Your task to perform on an android device: open app "DuckDuckGo Privacy Browser" (install if not already installed) Image 0: 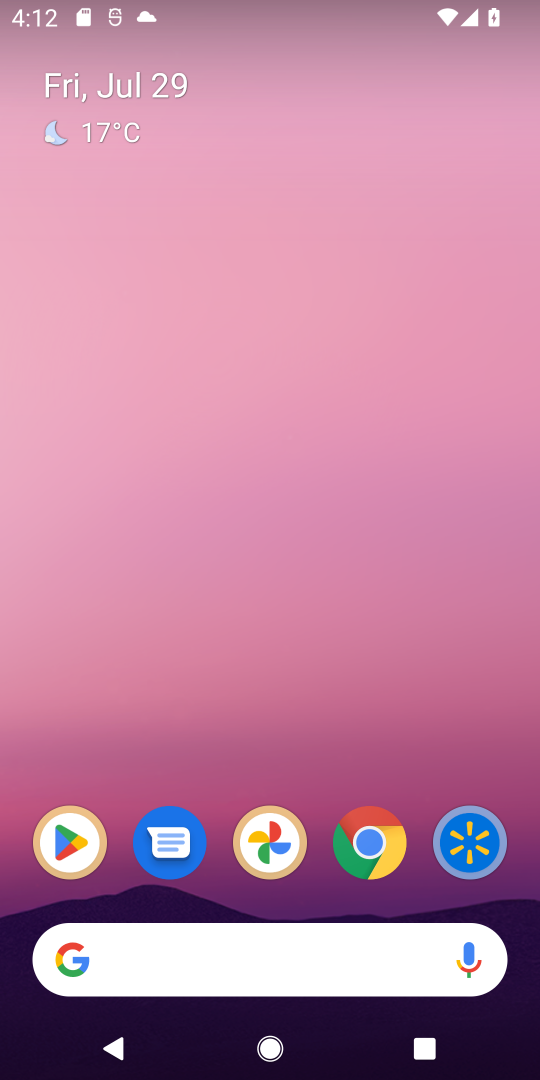
Step 0: click (79, 855)
Your task to perform on an android device: open app "DuckDuckGo Privacy Browser" (install if not already installed) Image 1: 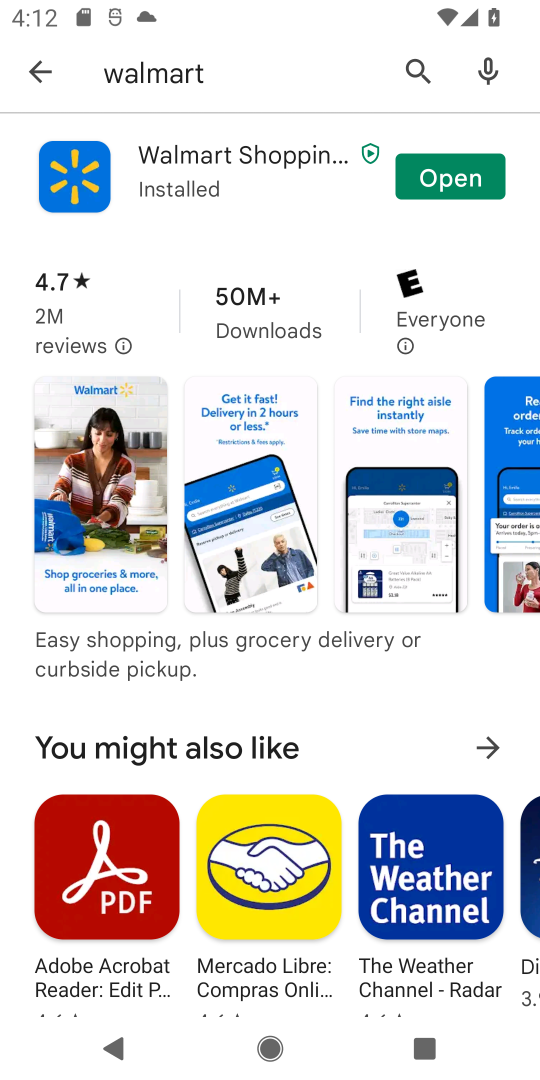
Step 1: click (418, 66)
Your task to perform on an android device: open app "DuckDuckGo Privacy Browser" (install if not already installed) Image 2: 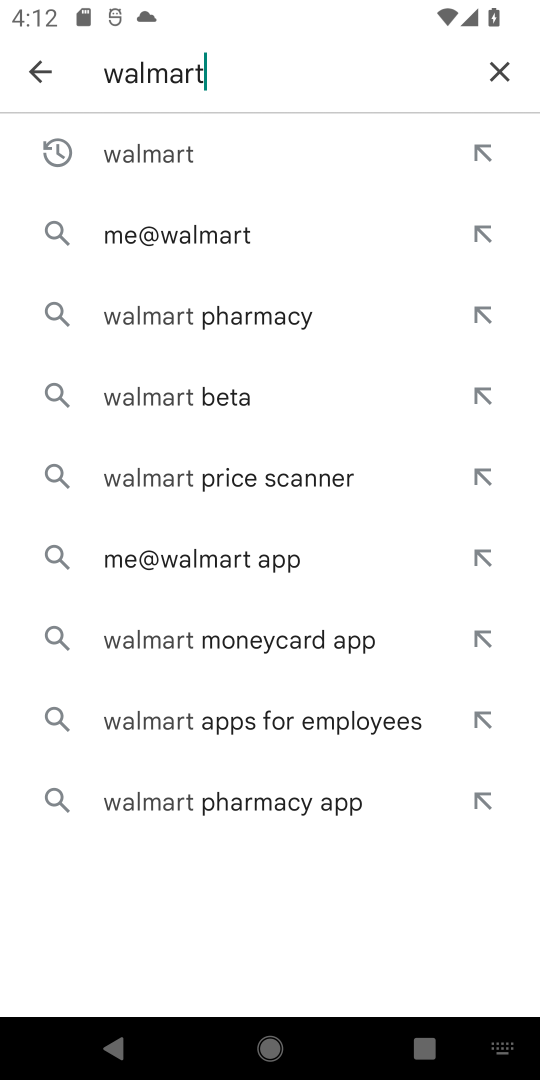
Step 2: click (497, 78)
Your task to perform on an android device: open app "DuckDuckGo Privacy Browser" (install if not already installed) Image 3: 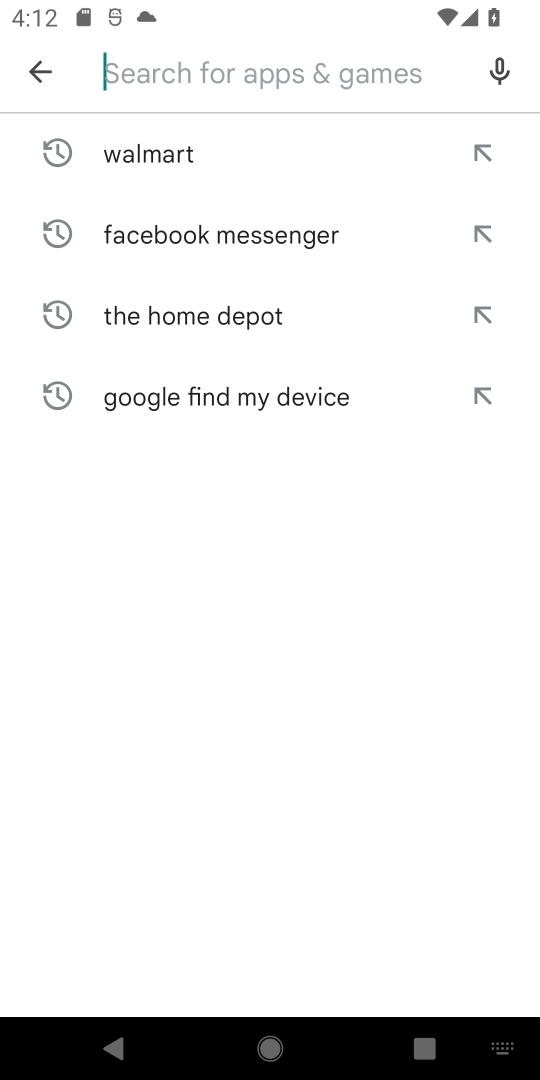
Step 3: click (224, 78)
Your task to perform on an android device: open app "DuckDuckGo Privacy Browser" (install if not already installed) Image 4: 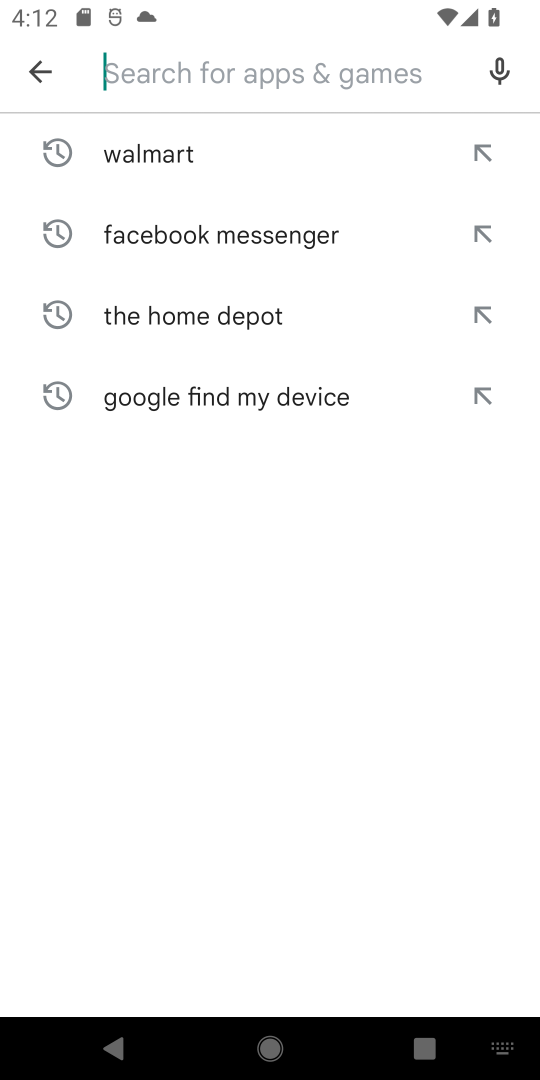
Step 4: type "duckduckgo"
Your task to perform on an android device: open app "DuckDuckGo Privacy Browser" (install if not already installed) Image 5: 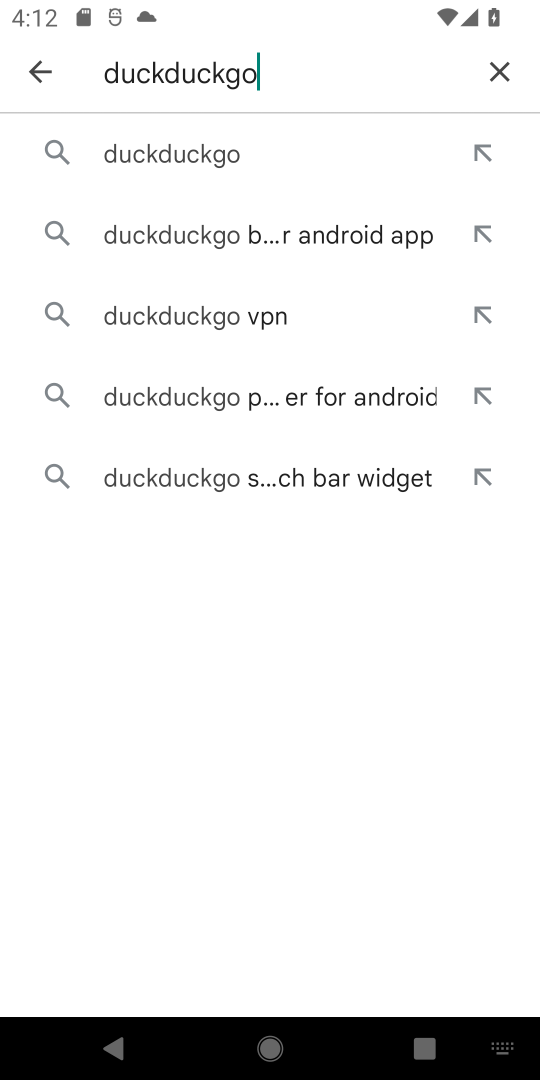
Step 5: click (196, 145)
Your task to perform on an android device: open app "DuckDuckGo Privacy Browser" (install if not already installed) Image 6: 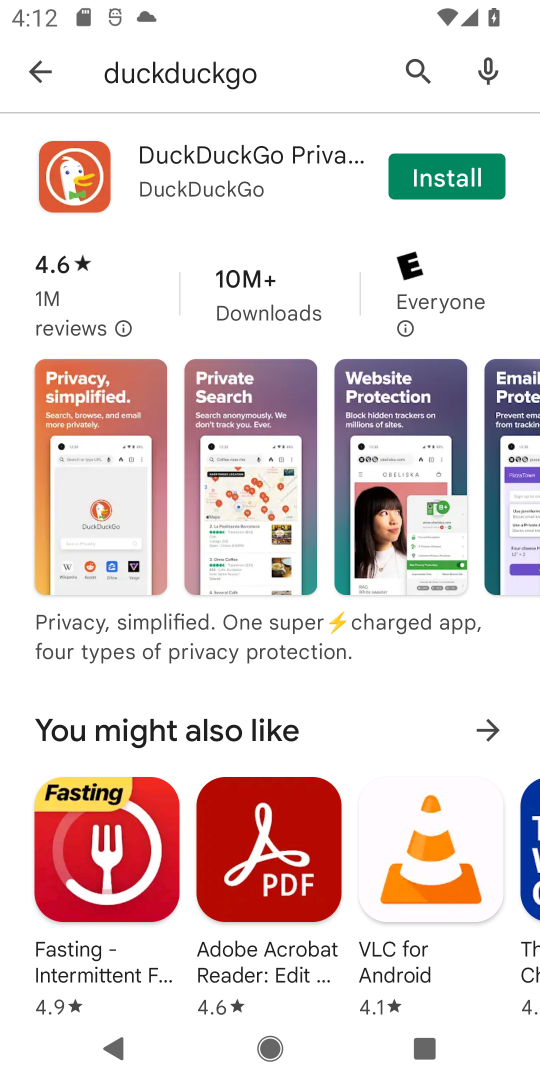
Step 6: click (436, 186)
Your task to perform on an android device: open app "DuckDuckGo Privacy Browser" (install if not already installed) Image 7: 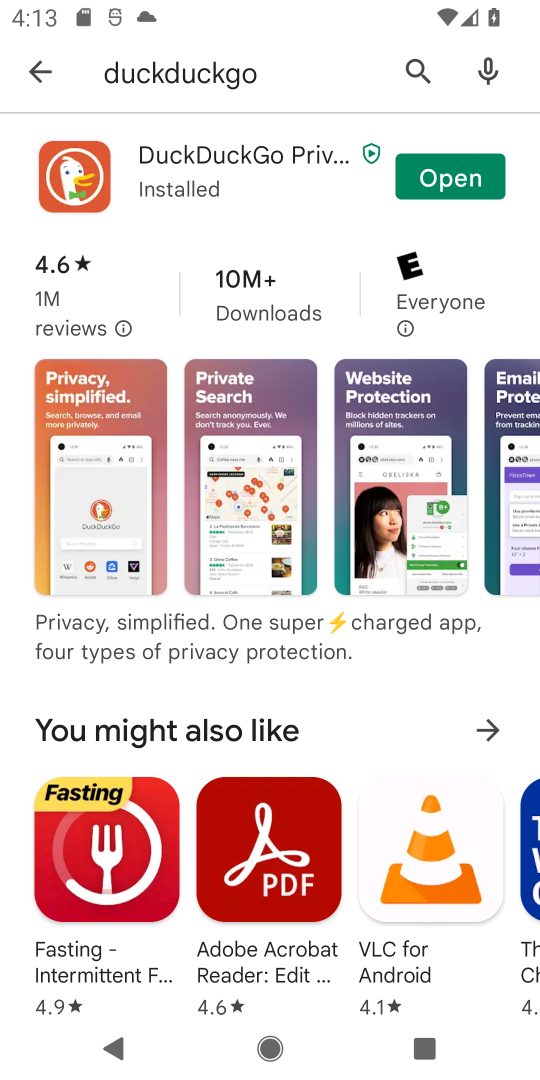
Step 7: click (432, 188)
Your task to perform on an android device: open app "DuckDuckGo Privacy Browser" (install if not already installed) Image 8: 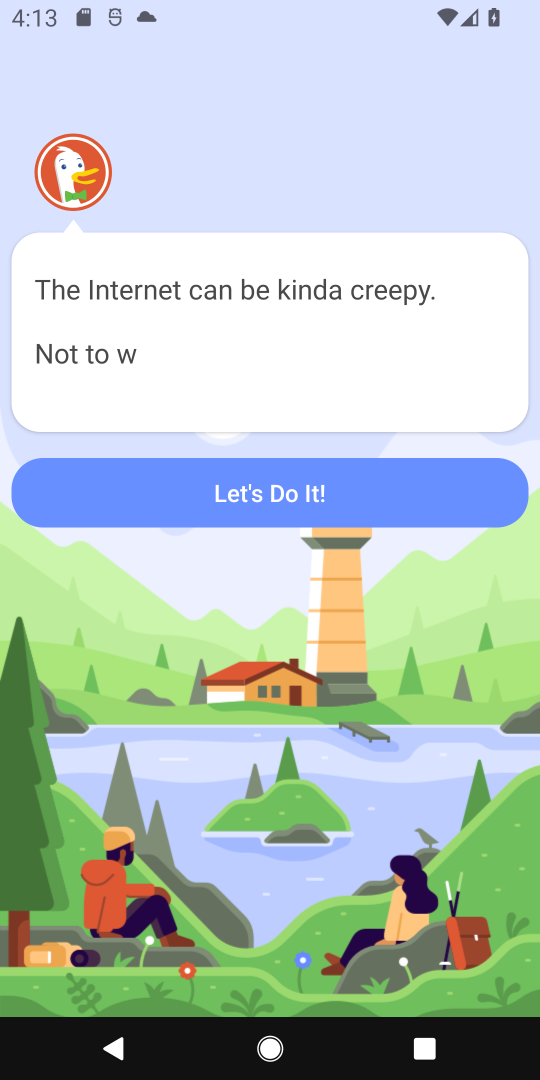
Step 8: task complete